Your task to perform on an android device: empty trash in the gmail app Image 0: 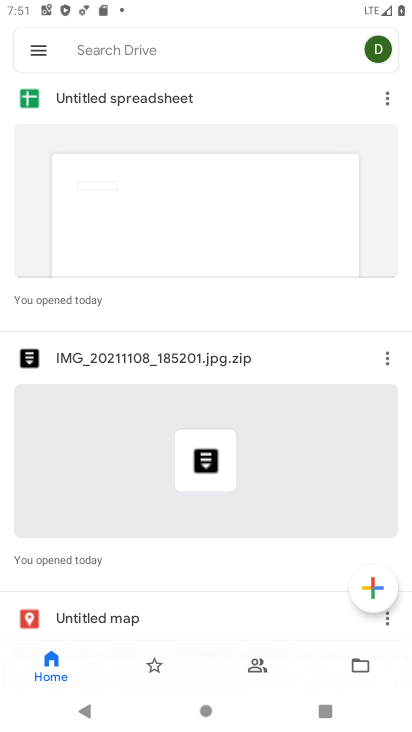
Step 0: press home button
Your task to perform on an android device: empty trash in the gmail app Image 1: 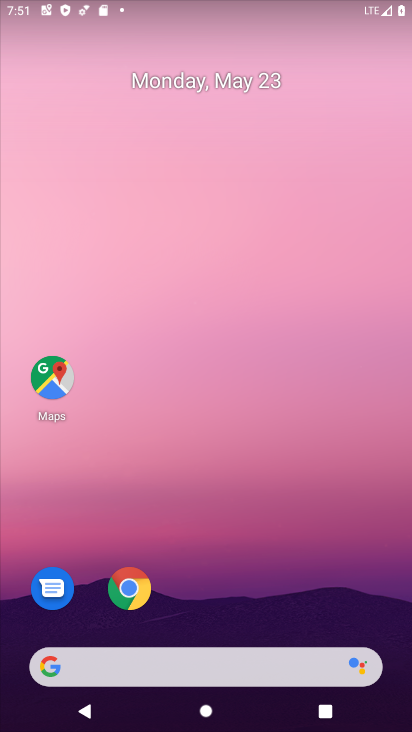
Step 1: drag from (389, 604) to (370, 122)
Your task to perform on an android device: empty trash in the gmail app Image 2: 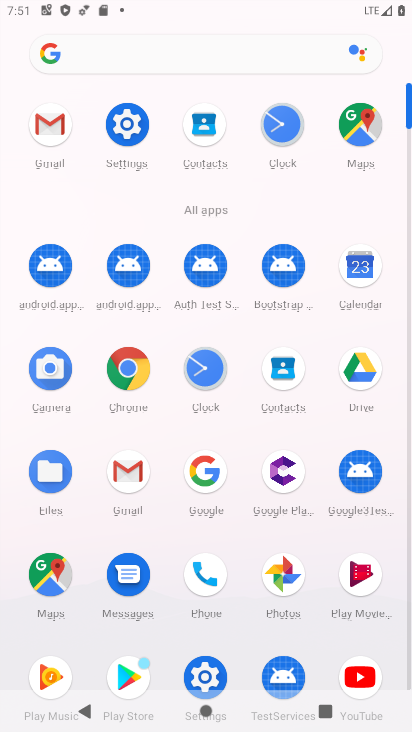
Step 2: click (130, 471)
Your task to perform on an android device: empty trash in the gmail app Image 3: 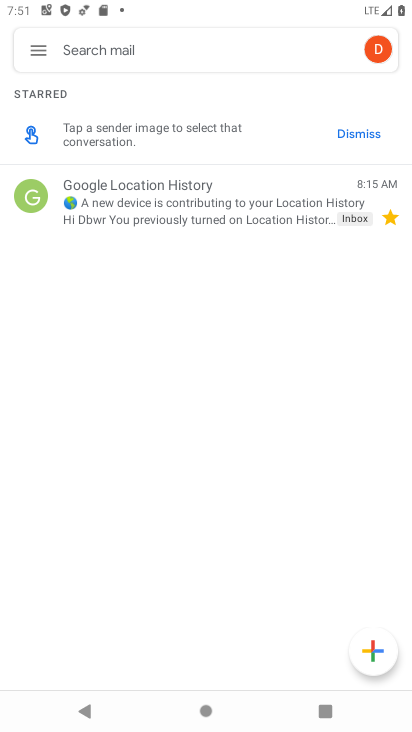
Step 3: click (32, 52)
Your task to perform on an android device: empty trash in the gmail app Image 4: 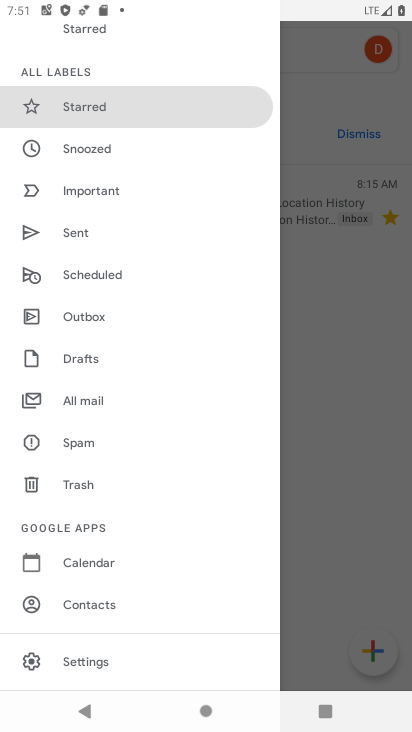
Step 4: click (70, 482)
Your task to perform on an android device: empty trash in the gmail app Image 5: 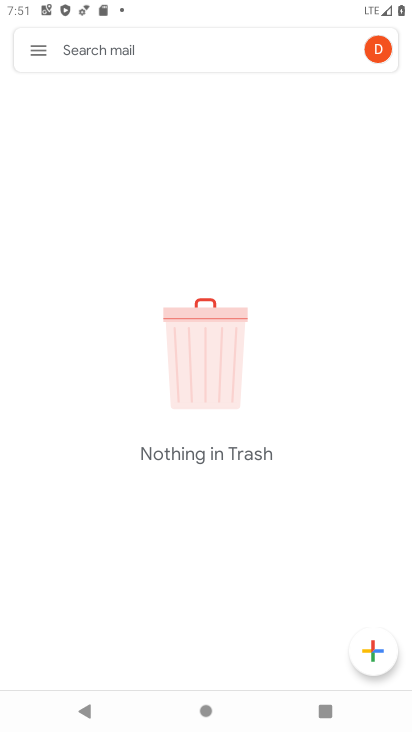
Step 5: task complete